Your task to perform on an android device: Go to Reddit.com Image 0: 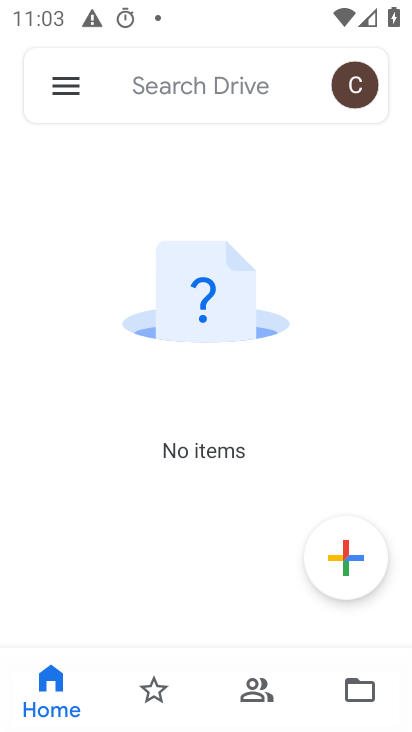
Step 0: press home button
Your task to perform on an android device: Go to Reddit.com Image 1: 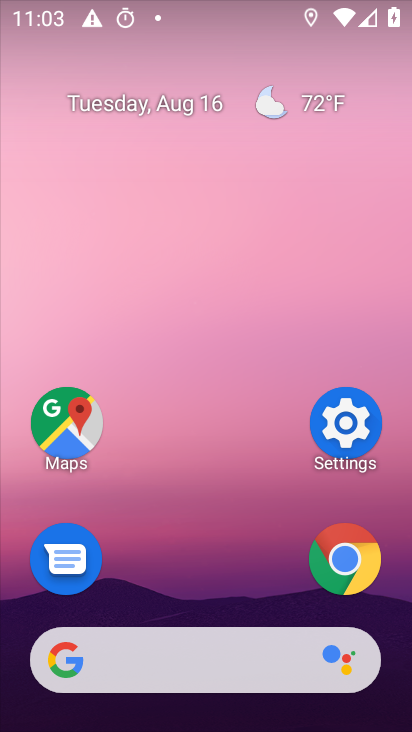
Step 1: click (338, 556)
Your task to perform on an android device: Go to Reddit.com Image 2: 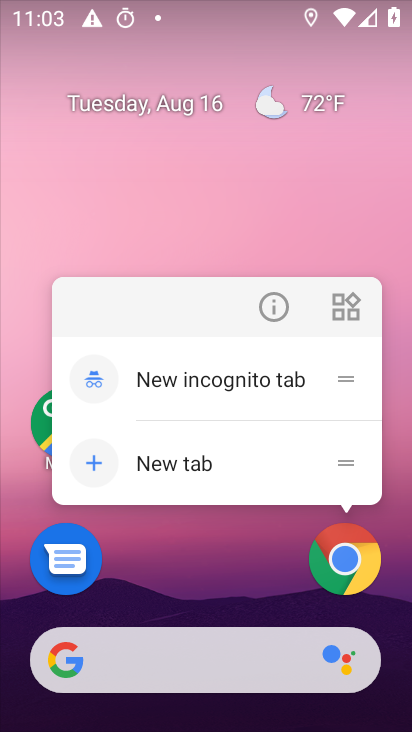
Step 2: click (344, 545)
Your task to perform on an android device: Go to Reddit.com Image 3: 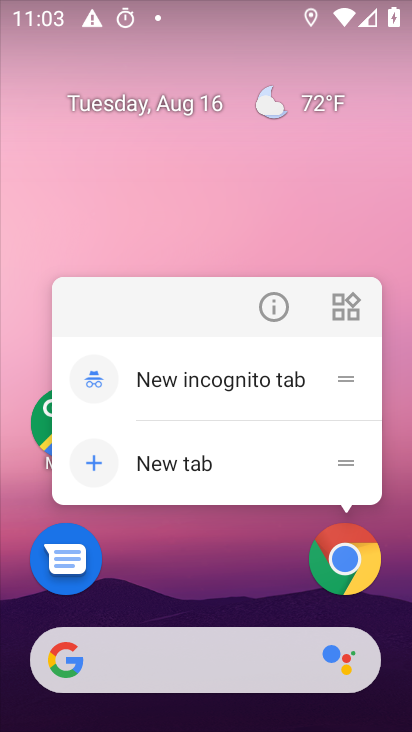
Step 3: click (344, 542)
Your task to perform on an android device: Go to Reddit.com Image 4: 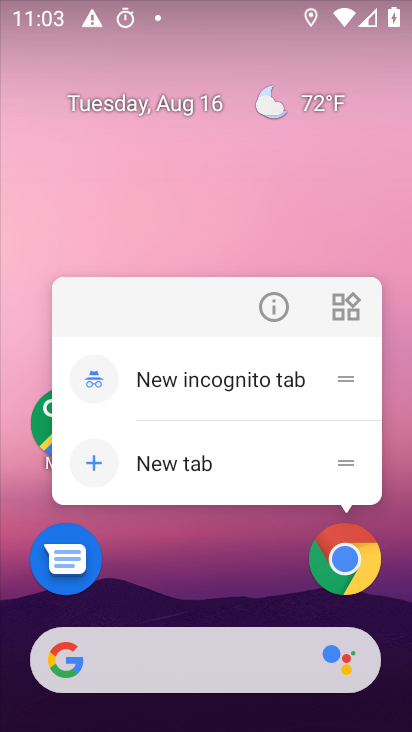
Step 4: click (344, 566)
Your task to perform on an android device: Go to Reddit.com Image 5: 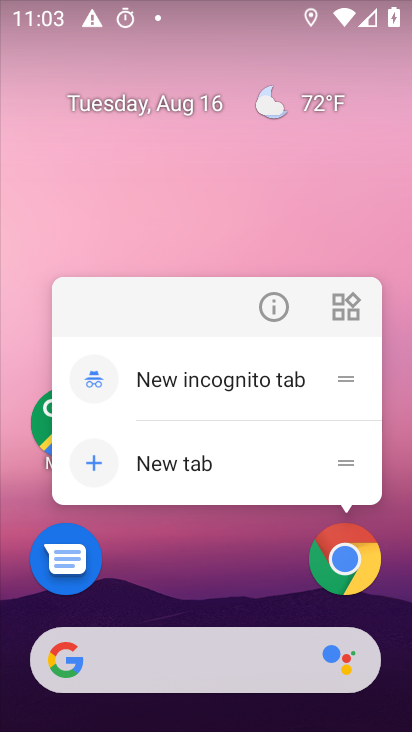
Step 5: click (337, 568)
Your task to perform on an android device: Go to Reddit.com Image 6: 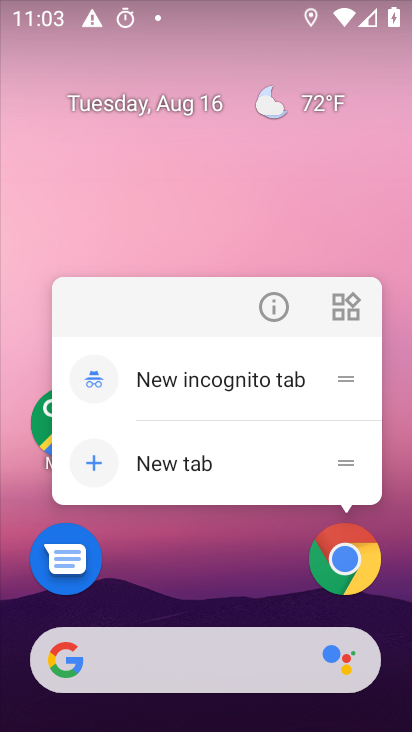
Step 6: click (353, 552)
Your task to perform on an android device: Go to Reddit.com Image 7: 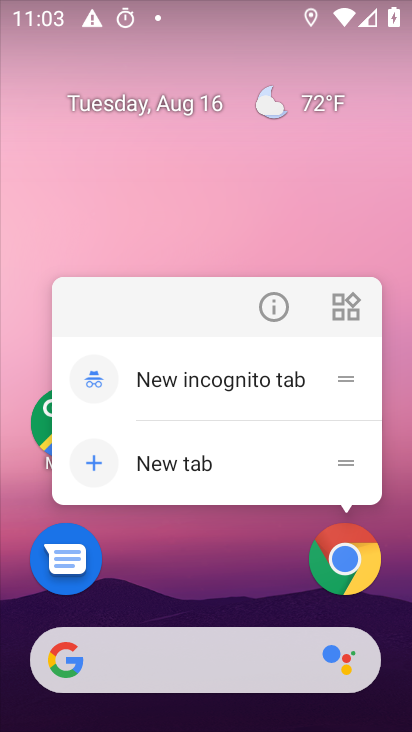
Step 7: click (332, 569)
Your task to perform on an android device: Go to Reddit.com Image 8: 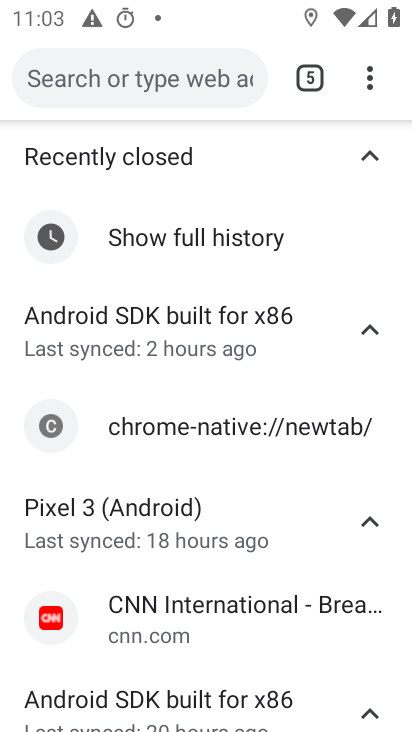
Step 8: drag from (366, 75) to (150, 154)
Your task to perform on an android device: Go to Reddit.com Image 9: 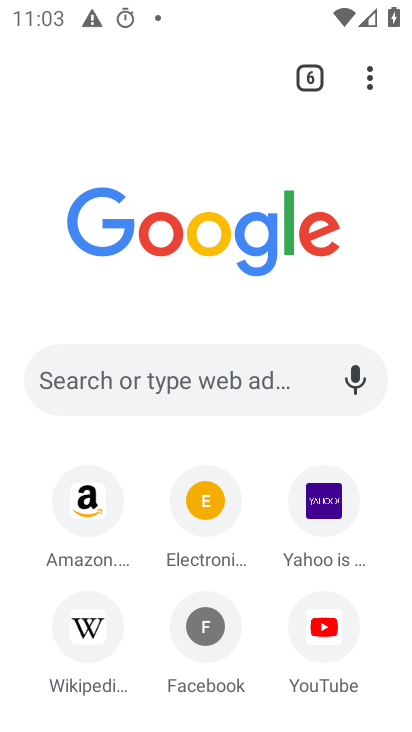
Step 9: click (122, 372)
Your task to perform on an android device: Go to Reddit.com Image 10: 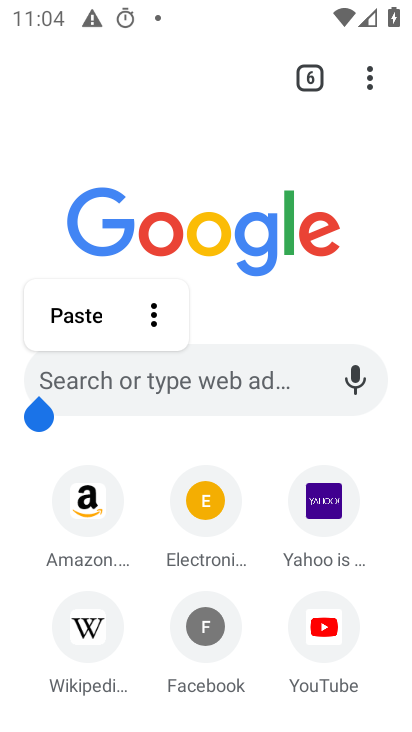
Step 10: click (170, 375)
Your task to perform on an android device: Go to Reddit.com Image 11: 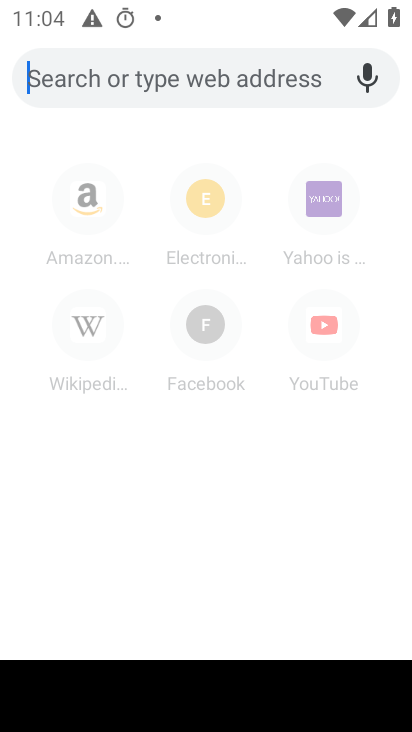
Step 11: type "Reddit.com"
Your task to perform on an android device: Go to Reddit.com Image 12: 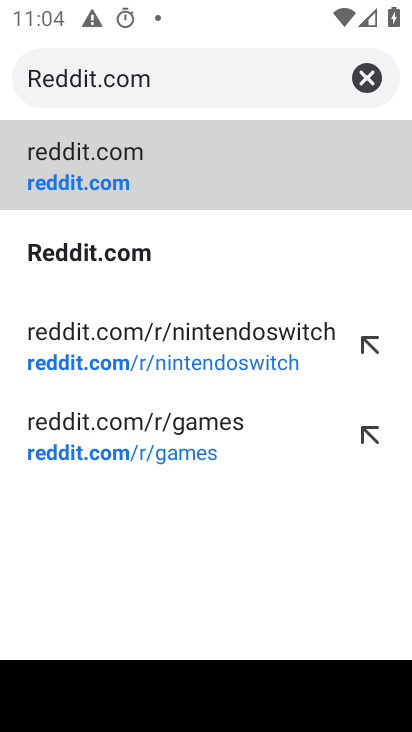
Step 12: click (167, 185)
Your task to perform on an android device: Go to Reddit.com Image 13: 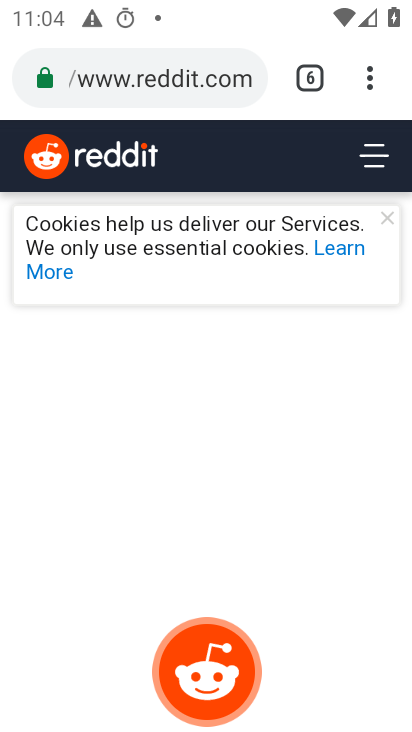
Step 13: task complete